Your task to perform on an android device: delete the emails in spam in the gmail app Image 0: 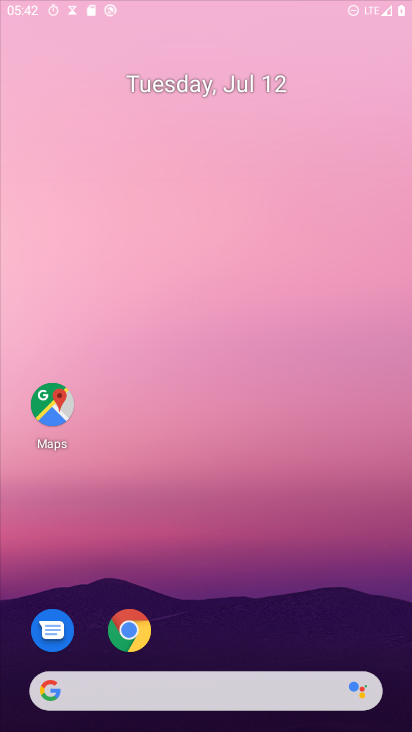
Step 0: drag from (255, 668) to (292, 45)
Your task to perform on an android device: delete the emails in spam in the gmail app Image 1: 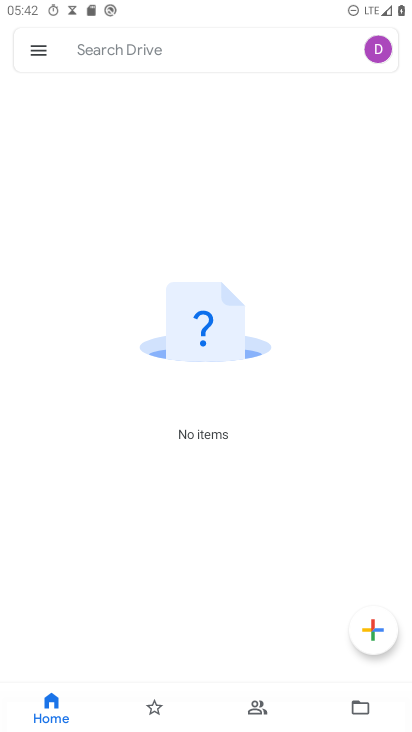
Step 1: press home button
Your task to perform on an android device: delete the emails in spam in the gmail app Image 2: 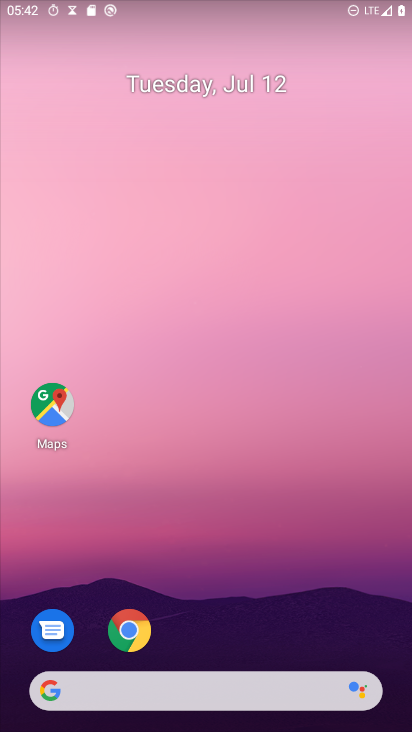
Step 2: drag from (194, 662) to (211, 41)
Your task to perform on an android device: delete the emails in spam in the gmail app Image 3: 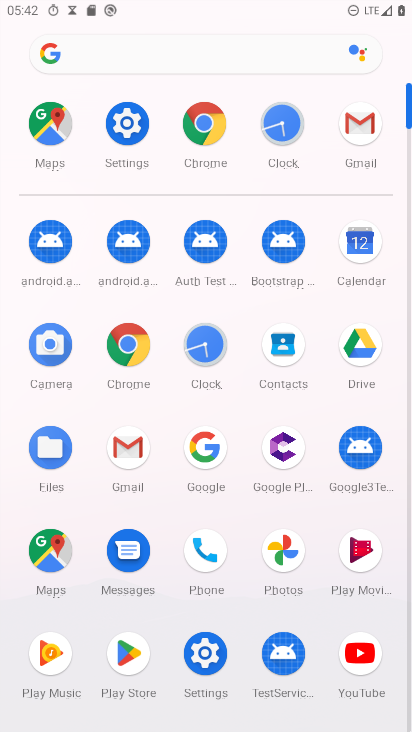
Step 3: click (131, 448)
Your task to perform on an android device: delete the emails in spam in the gmail app Image 4: 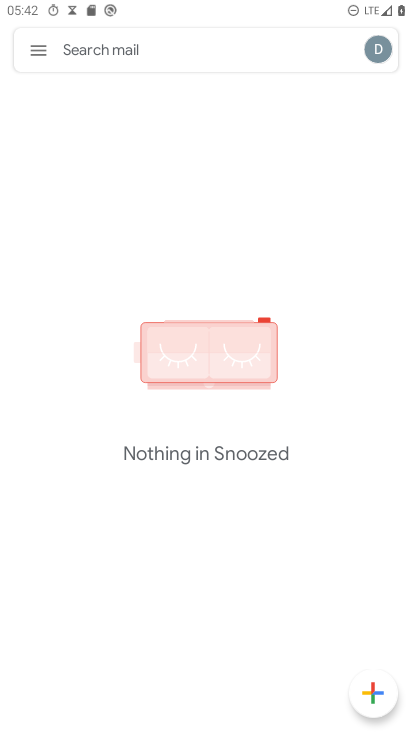
Step 4: click (36, 56)
Your task to perform on an android device: delete the emails in spam in the gmail app Image 5: 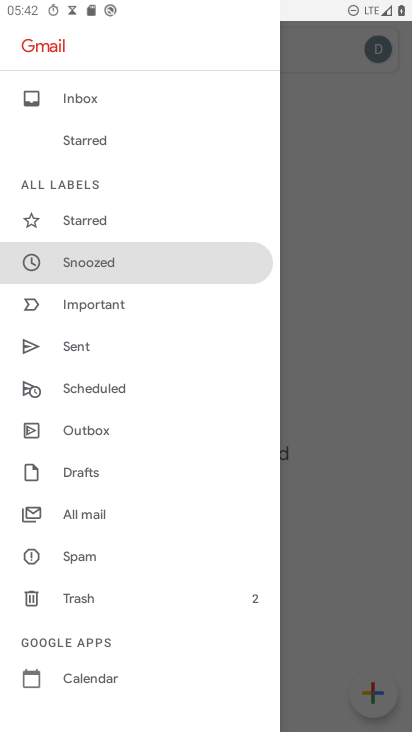
Step 5: click (80, 553)
Your task to perform on an android device: delete the emails in spam in the gmail app Image 6: 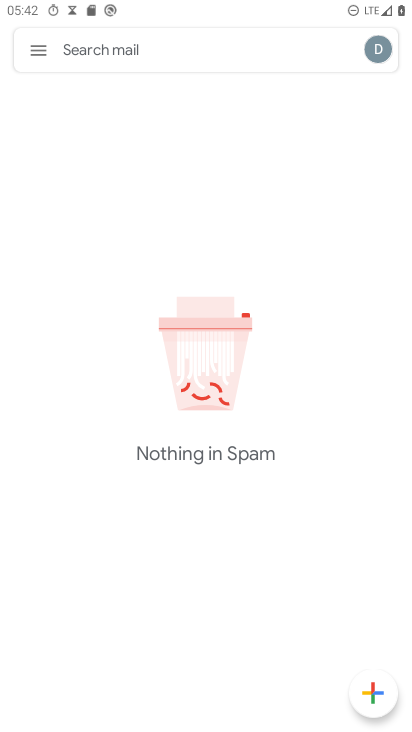
Step 6: task complete